Your task to perform on an android device: open app "Mercado Libre" (install if not already installed) and go to login screen Image 0: 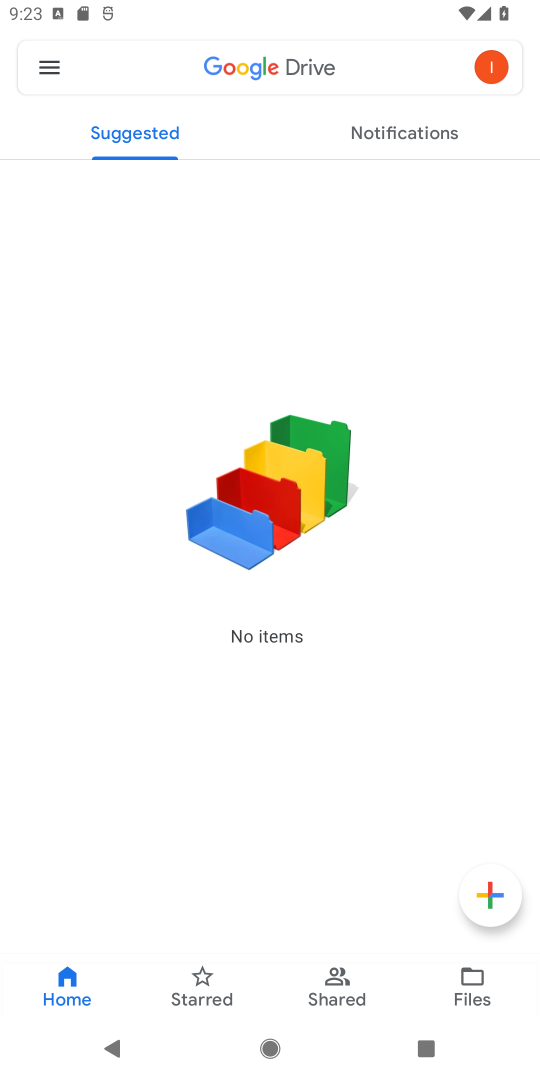
Step 0: press home button
Your task to perform on an android device: open app "Mercado Libre" (install if not already installed) and go to login screen Image 1: 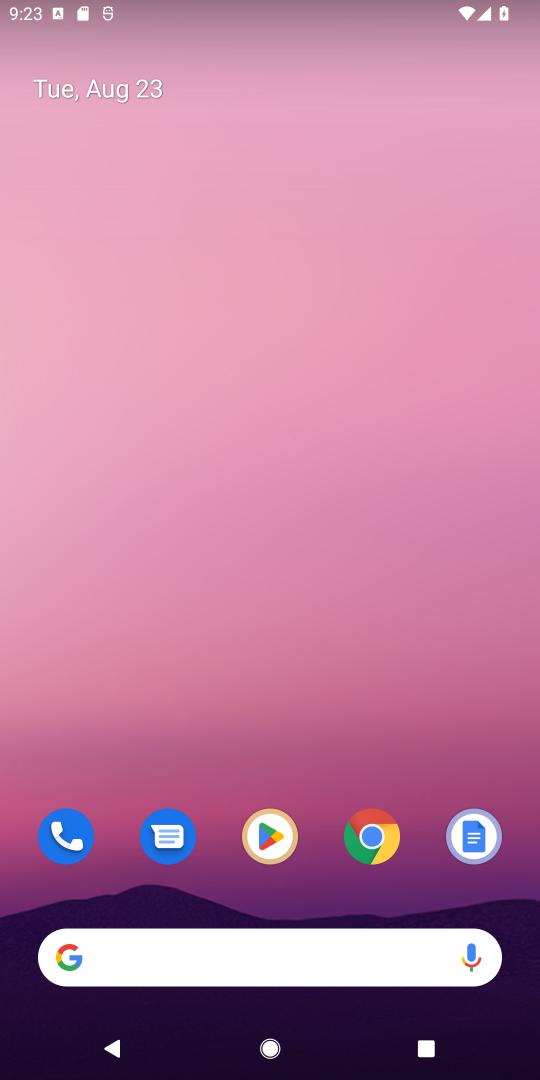
Step 1: click (273, 839)
Your task to perform on an android device: open app "Mercado Libre" (install if not already installed) and go to login screen Image 2: 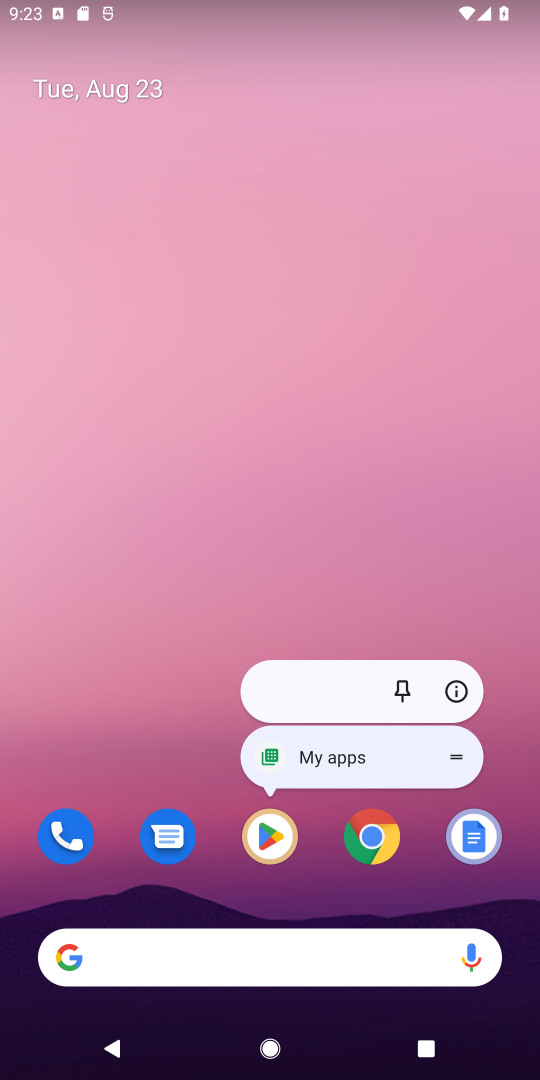
Step 2: click (269, 839)
Your task to perform on an android device: open app "Mercado Libre" (install if not already installed) and go to login screen Image 3: 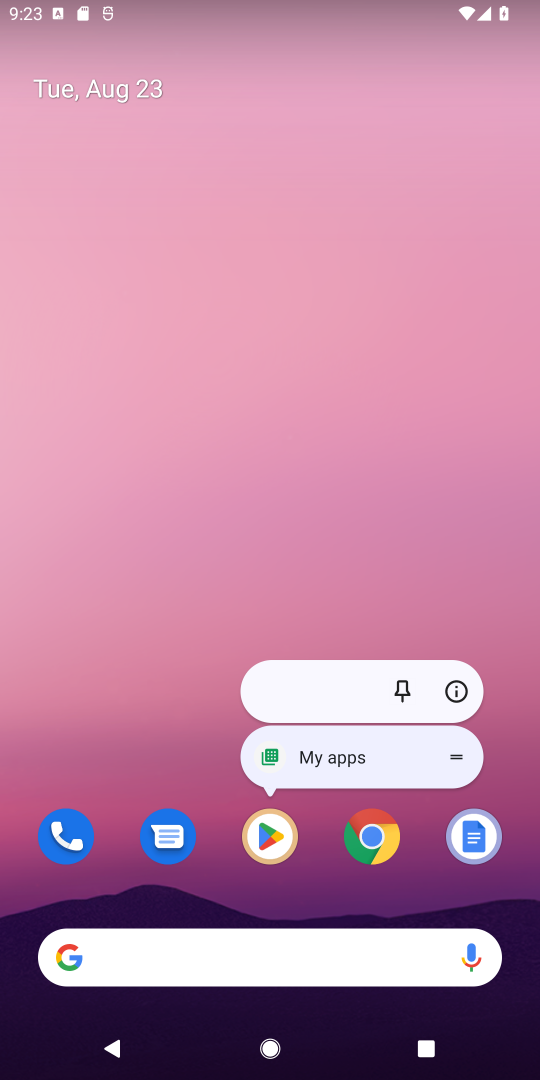
Step 3: click (269, 832)
Your task to perform on an android device: open app "Mercado Libre" (install if not already installed) and go to login screen Image 4: 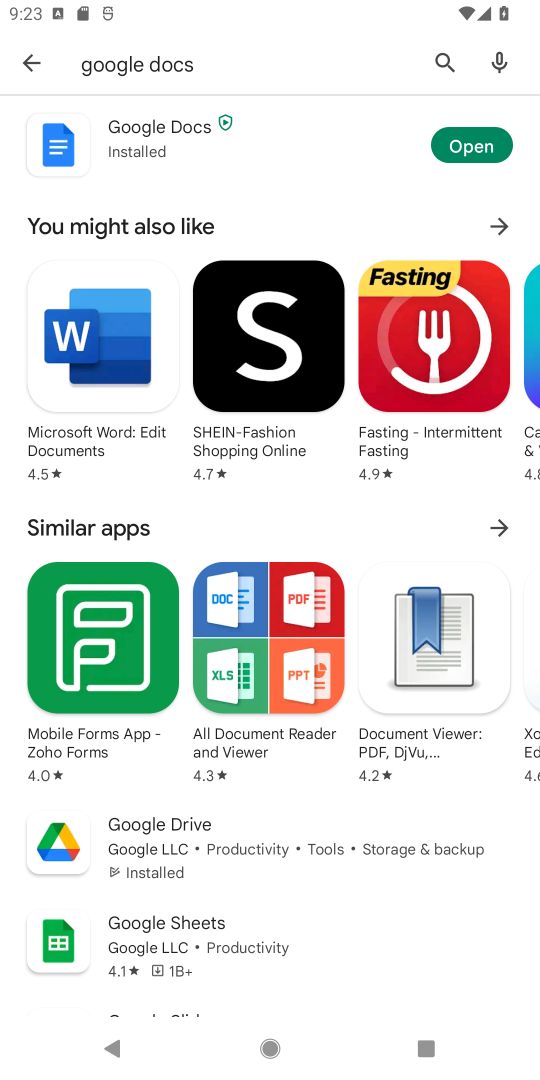
Step 4: click (436, 54)
Your task to perform on an android device: open app "Mercado Libre" (install if not already installed) and go to login screen Image 5: 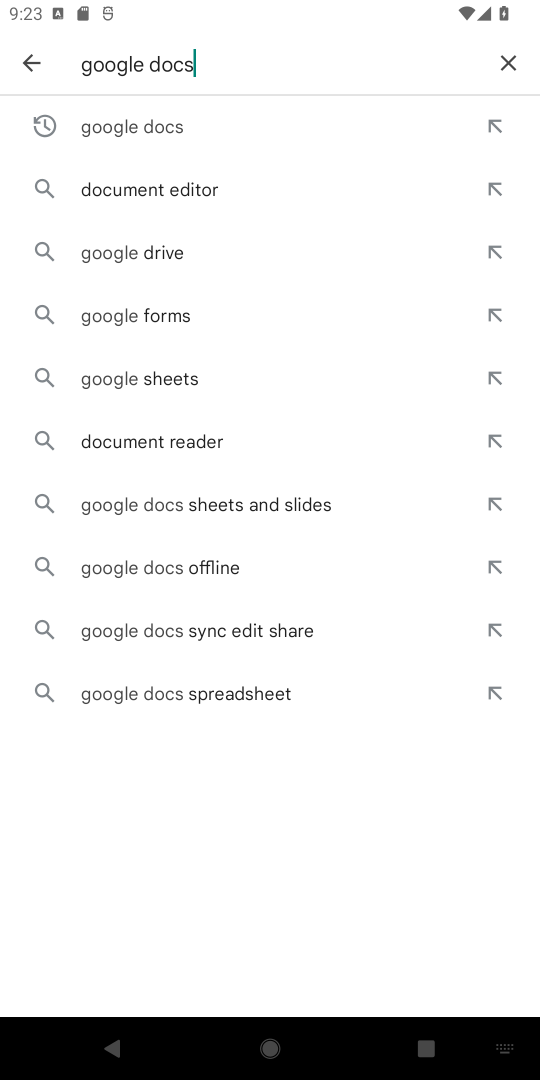
Step 5: click (505, 58)
Your task to perform on an android device: open app "Mercado Libre" (install if not already installed) and go to login screen Image 6: 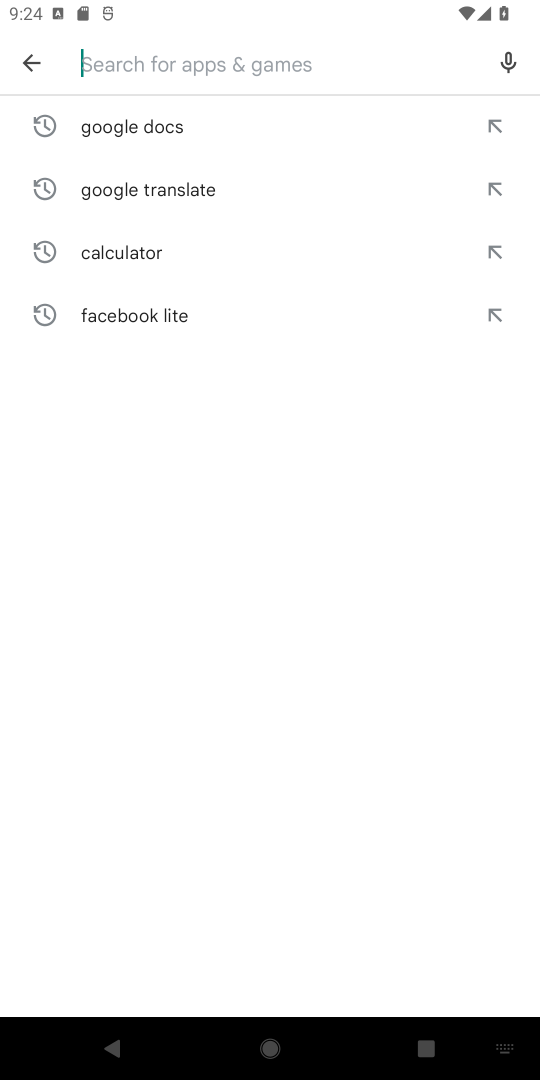
Step 6: type "Mercado Libre"
Your task to perform on an android device: open app "Mercado Libre" (install if not already installed) and go to login screen Image 7: 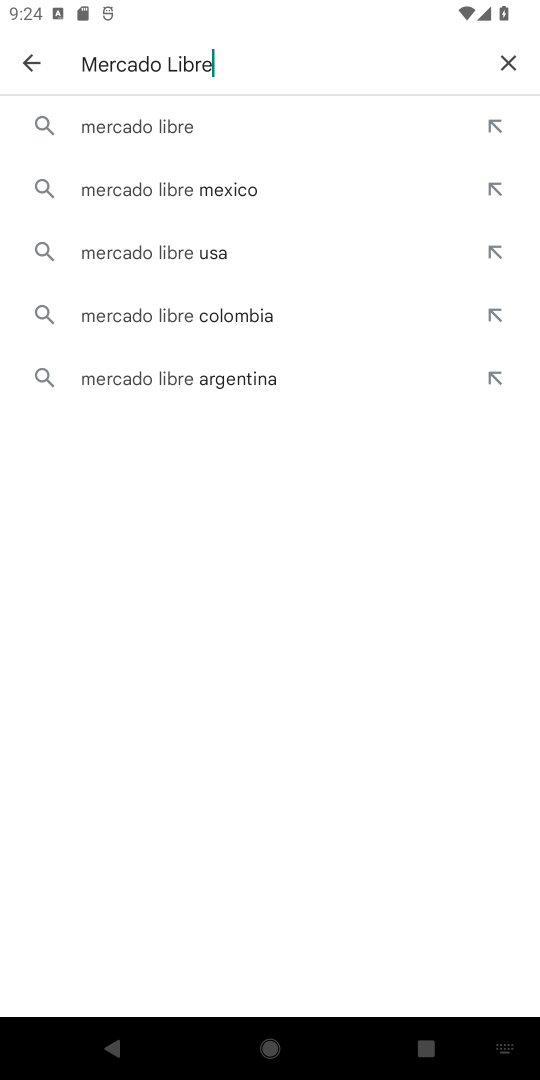
Step 7: click (192, 120)
Your task to perform on an android device: open app "Mercado Libre" (install if not already installed) and go to login screen Image 8: 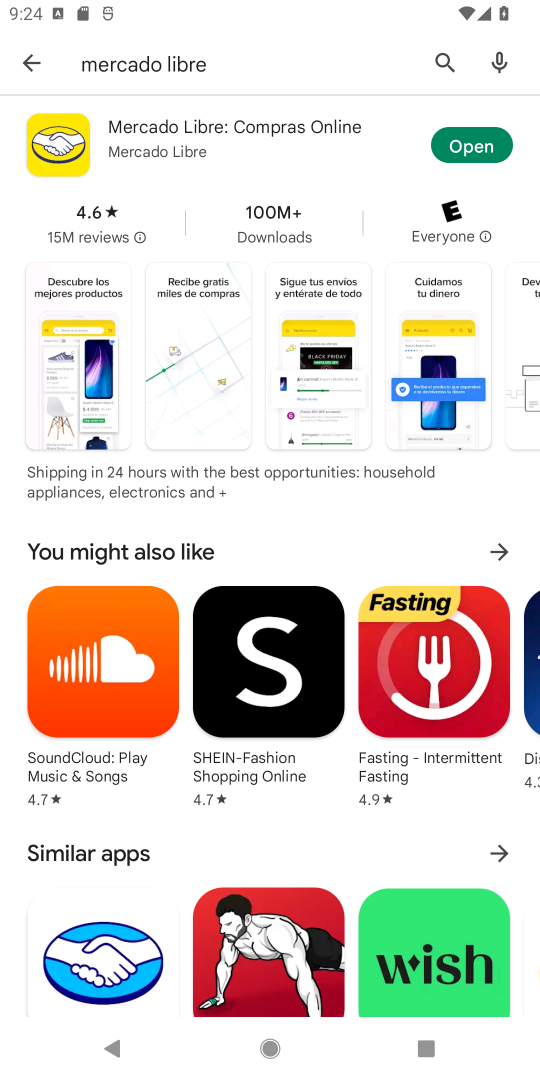
Step 8: click (481, 139)
Your task to perform on an android device: open app "Mercado Libre" (install if not already installed) and go to login screen Image 9: 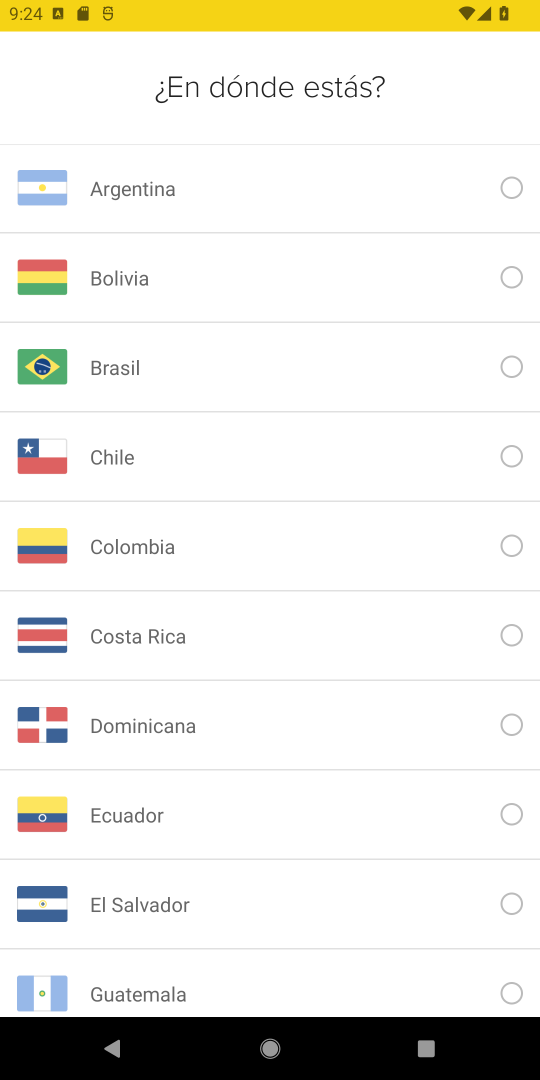
Step 9: task complete